Your task to perform on an android device: Open Chrome and go to the settings page Image 0: 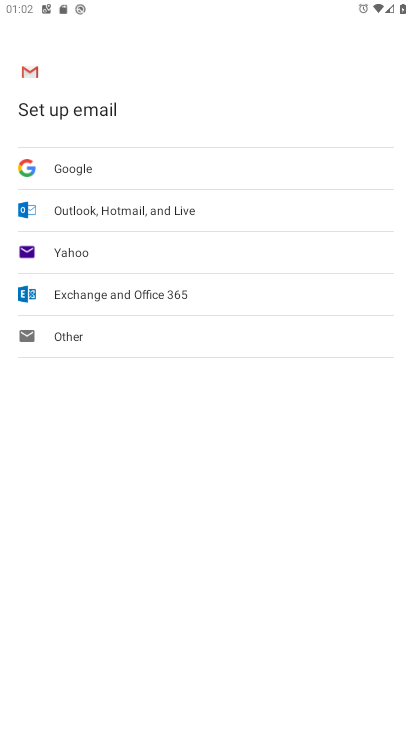
Step 0: press home button
Your task to perform on an android device: Open Chrome and go to the settings page Image 1: 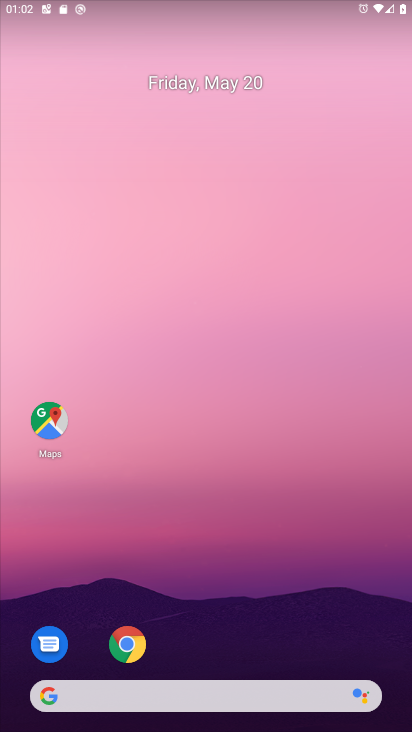
Step 1: drag from (218, 545) to (218, 270)
Your task to perform on an android device: Open Chrome and go to the settings page Image 2: 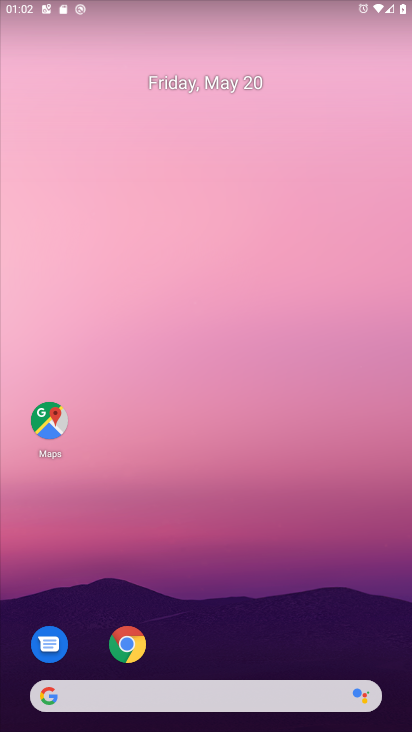
Step 2: drag from (226, 678) to (250, 296)
Your task to perform on an android device: Open Chrome and go to the settings page Image 3: 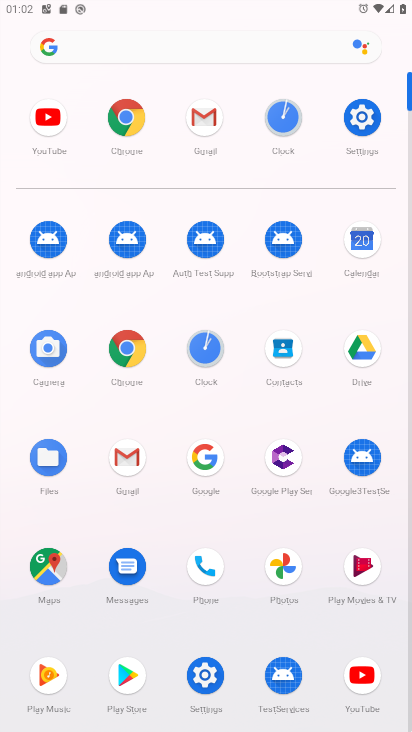
Step 3: click (129, 363)
Your task to perform on an android device: Open Chrome and go to the settings page Image 4: 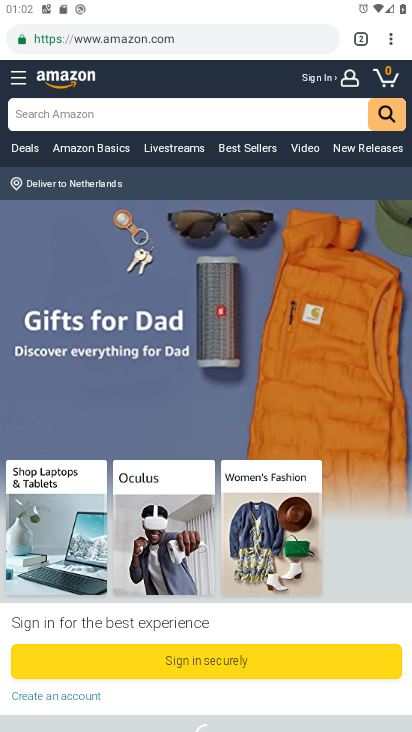
Step 4: click (388, 36)
Your task to perform on an android device: Open Chrome and go to the settings page Image 5: 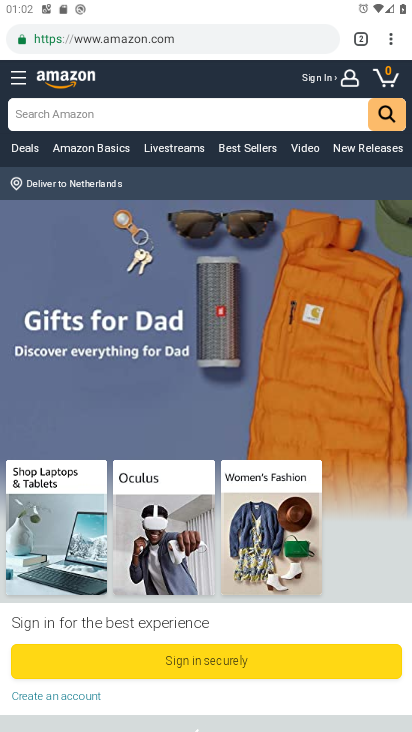
Step 5: click (394, 41)
Your task to perform on an android device: Open Chrome and go to the settings page Image 6: 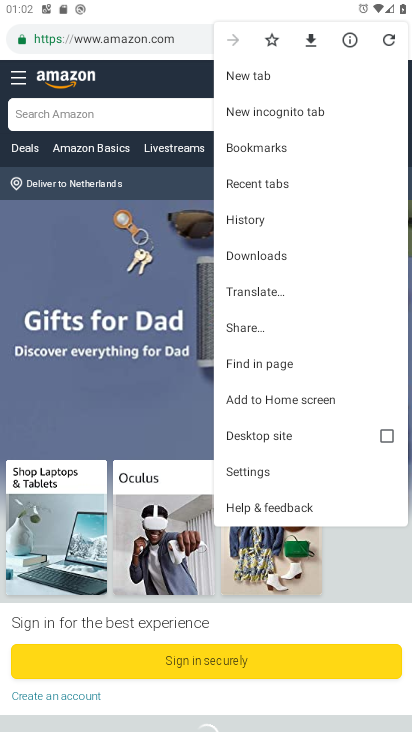
Step 6: click (241, 478)
Your task to perform on an android device: Open Chrome and go to the settings page Image 7: 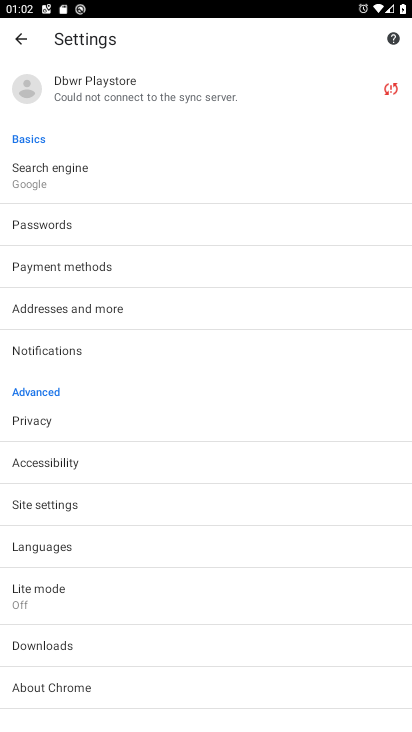
Step 7: task complete